Your task to perform on an android device: find snoozed emails in the gmail app Image 0: 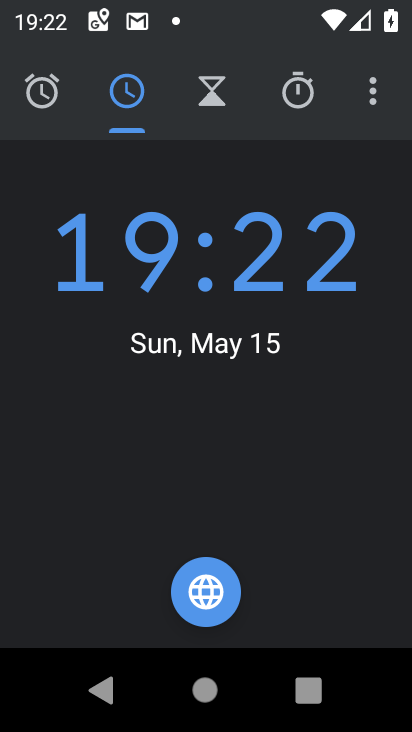
Step 0: press home button
Your task to perform on an android device: find snoozed emails in the gmail app Image 1: 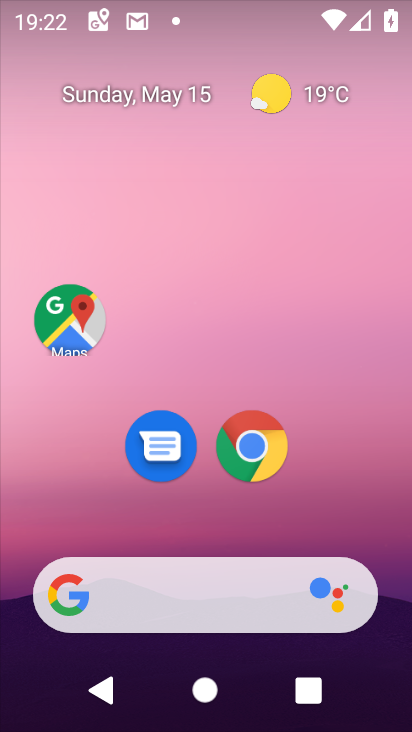
Step 1: drag from (273, 626) to (266, 173)
Your task to perform on an android device: find snoozed emails in the gmail app Image 2: 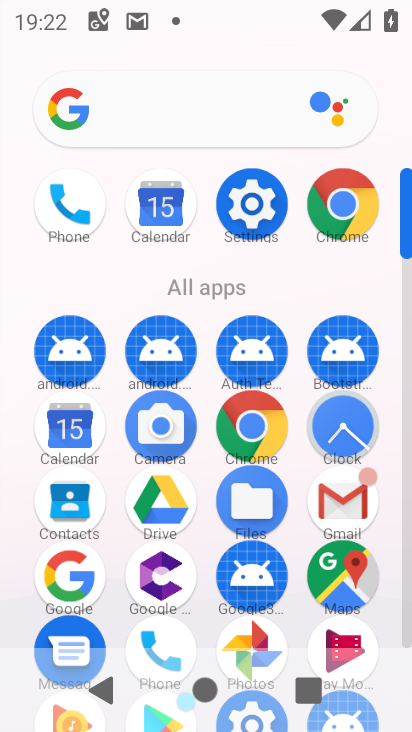
Step 2: click (326, 487)
Your task to perform on an android device: find snoozed emails in the gmail app Image 3: 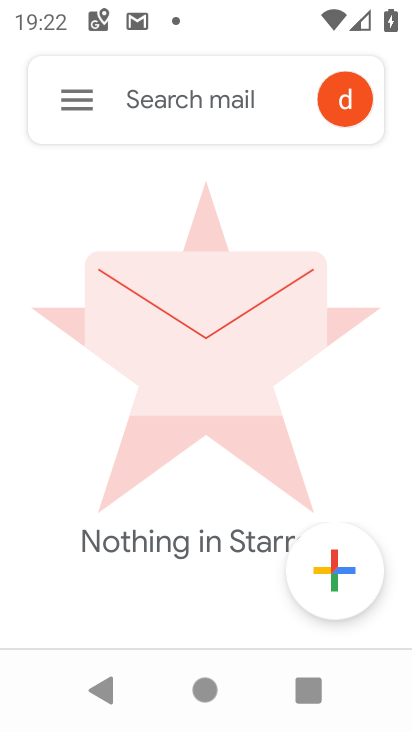
Step 3: click (55, 98)
Your task to perform on an android device: find snoozed emails in the gmail app Image 4: 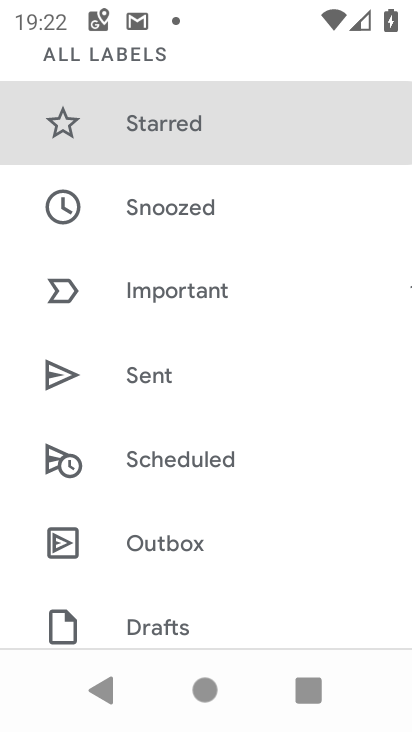
Step 4: click (198, 214)
Your task to perform on an android device: find snoozed emails in the gmail app Image 5: 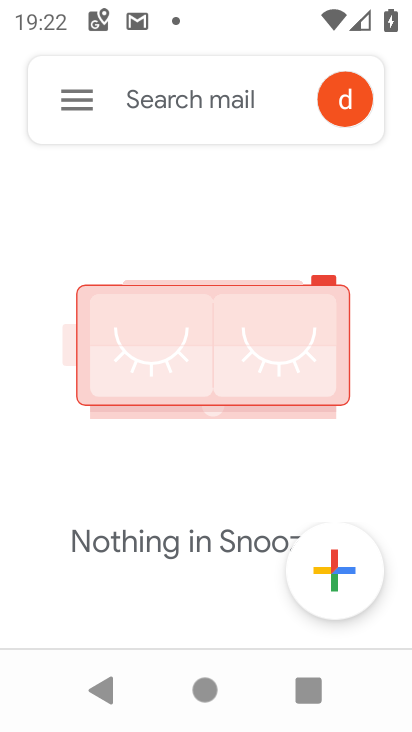
Step 5: task complete